Your task to perform on an android device: Open notification settings Image 0: 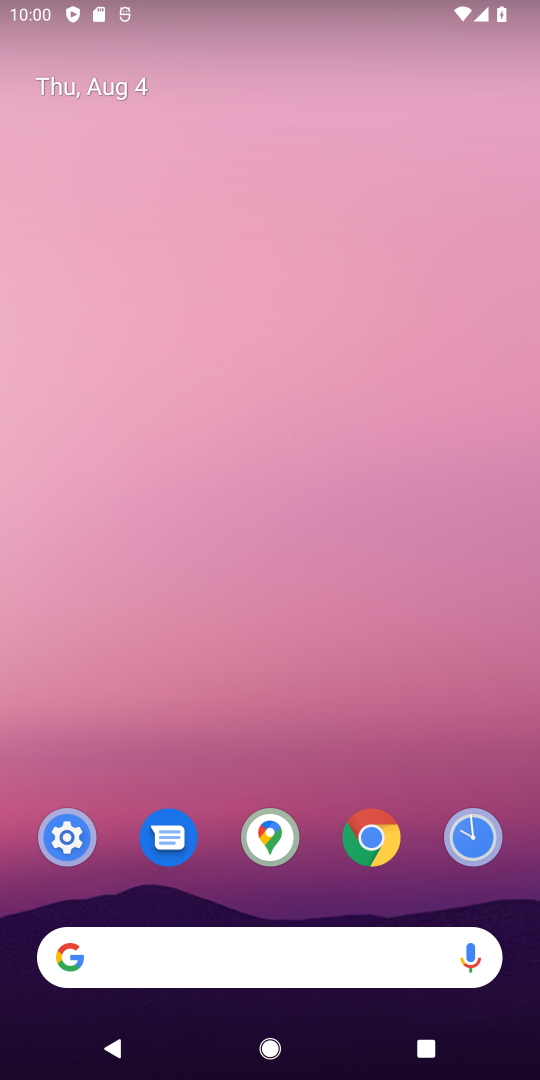
Step 0: drag from (407, 804) to (382, 29)
Your task to perform on an android device: Open notification settings Image 1: 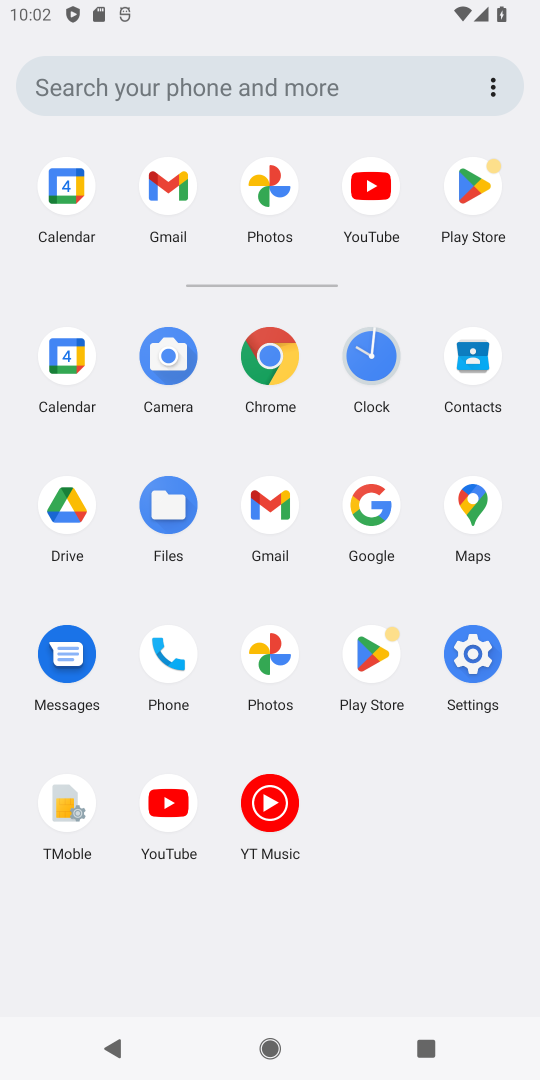
Step 1: click (464, 662)
Your task to perform on an android device: Open notification settings Image 2: 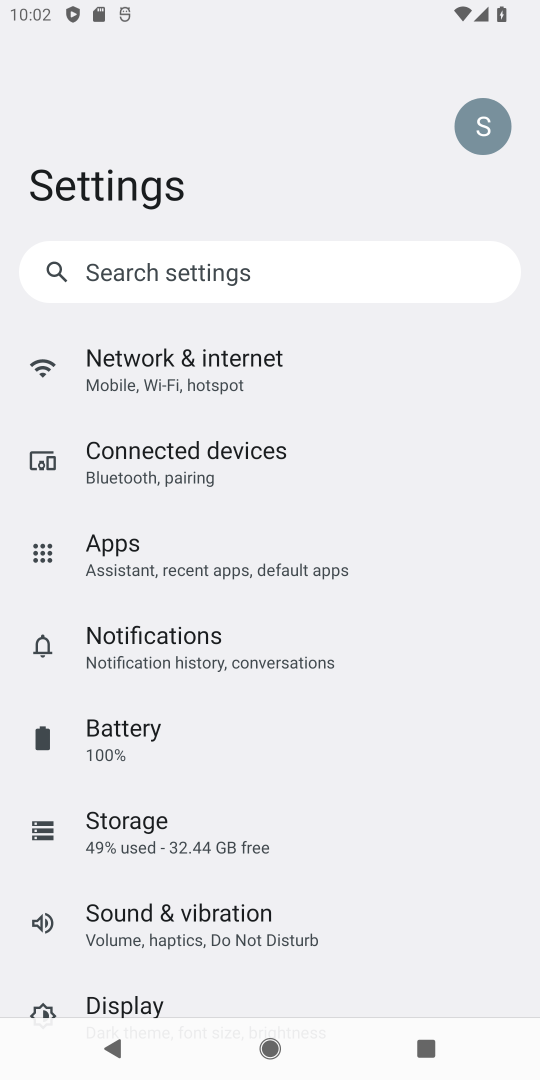
Step 2: click (184, 653)
Your task to perform on an android device: Open notification settings Image 3: 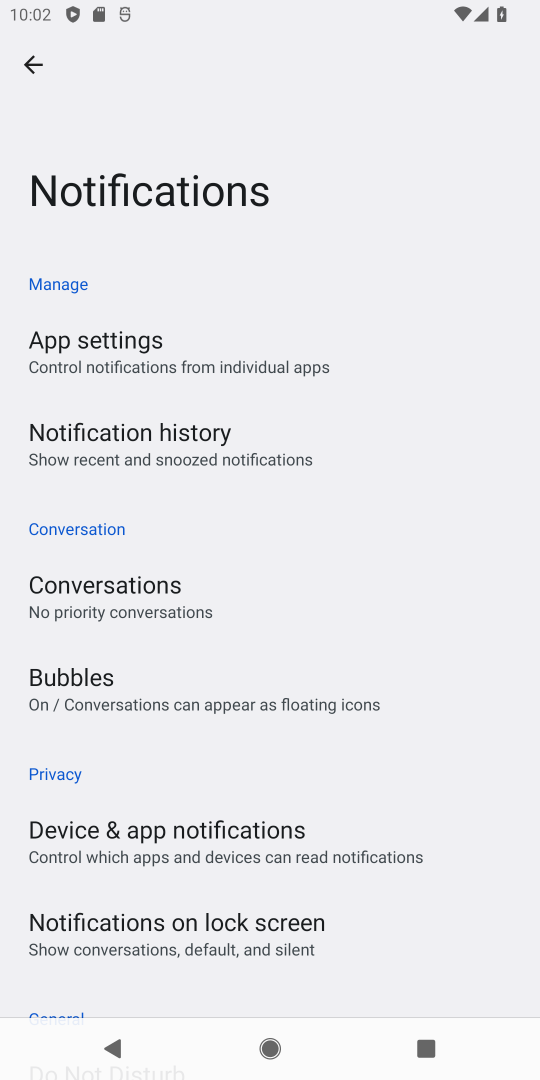
Step 3: task complete